Your task to perform on an android device: Go to sound settings Image 0: 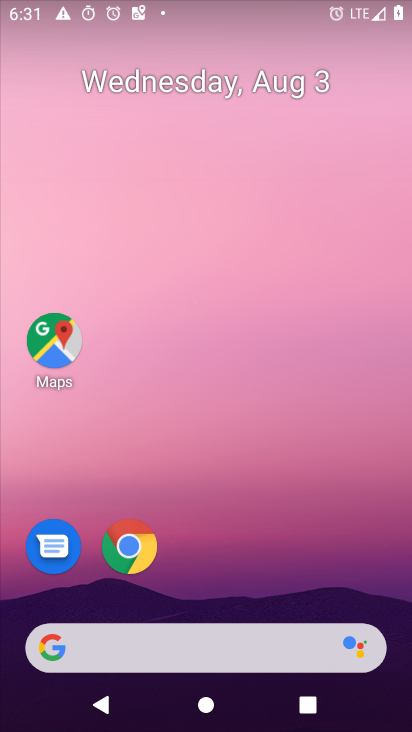
Step 0: press home button
Your task to perform on an android device: Go to sound settings Image 1: 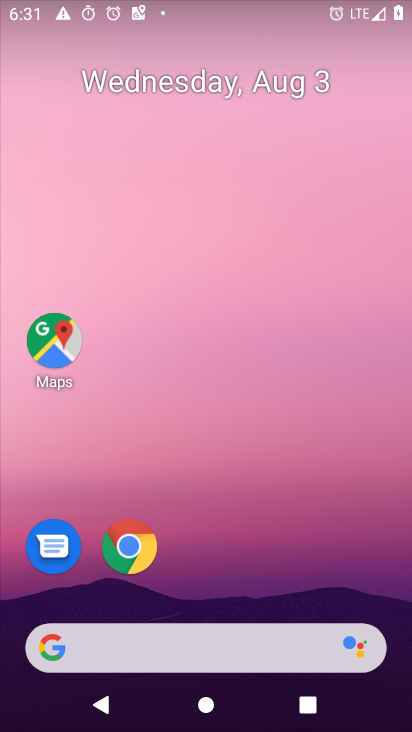
Step 1: click (244, 275)
Your task to perform on an android device: Go to sound settings Image 2: 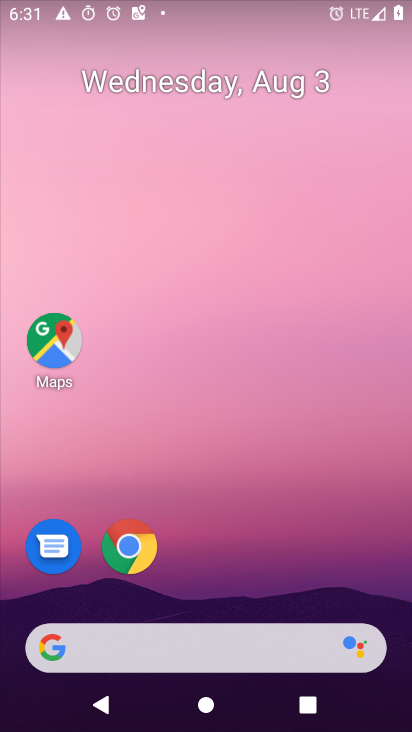
Step 2: drag from (262, 603) to (284, 3)
Your task to perform on an android device: Go to sound settings Image 3: 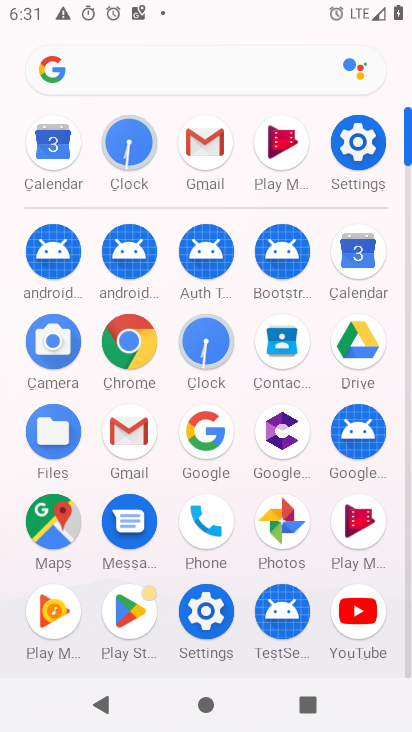
Step 3: click (363, 138)
Your task to perform on an android device: Go to sound settings Image 4: 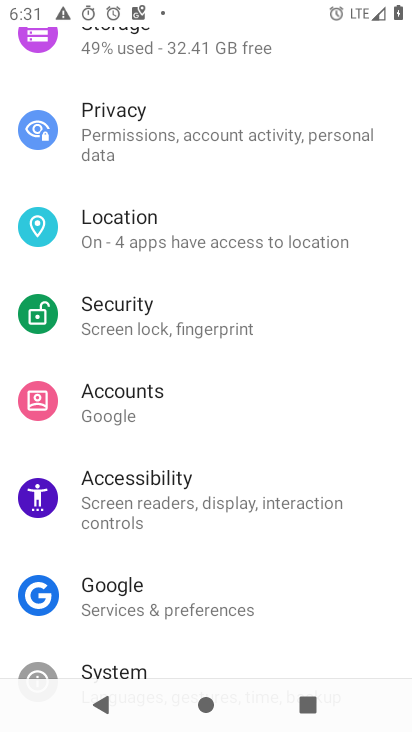
Step 4: drag from (289, 186) to (325, 604)
Your task to perform on an android device: Go to sound settings Image 5: 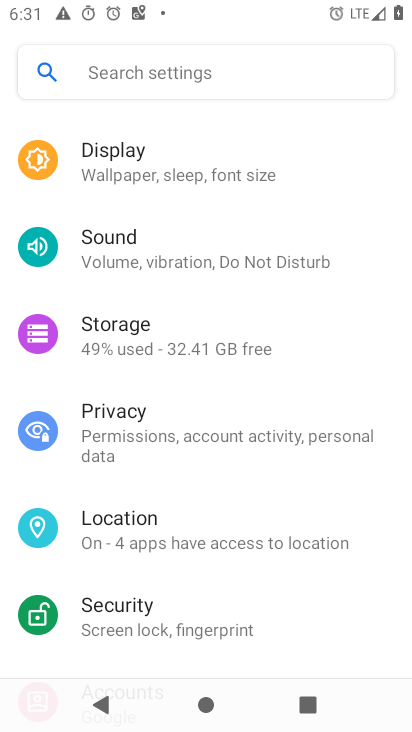
Step 5: click (125, 241)
Your task to perform on an android device: Go to sound settings Image 6: 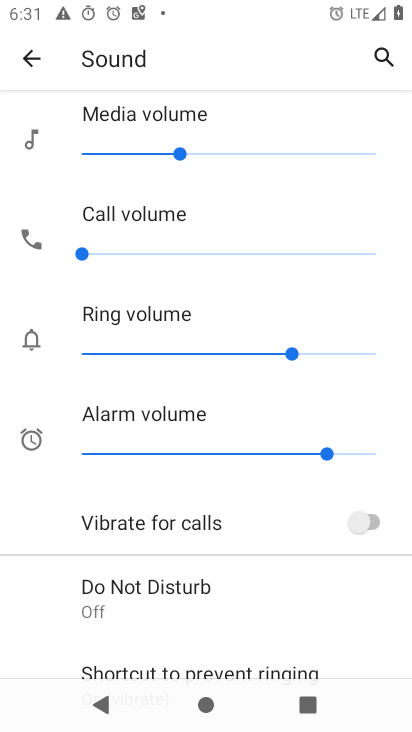
Step 6: task complete